Your task to perform on an android device: clear all cookies in the chrome app Image 0: 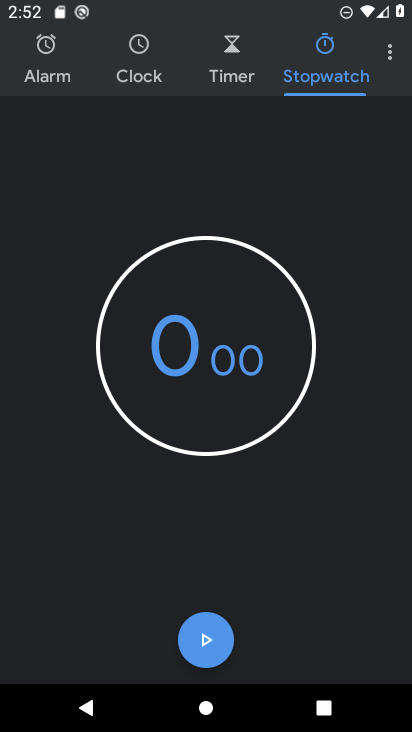
Step 0: press home button
Your task to perform on an android device: clear all cookies in the chrome app Image 1: 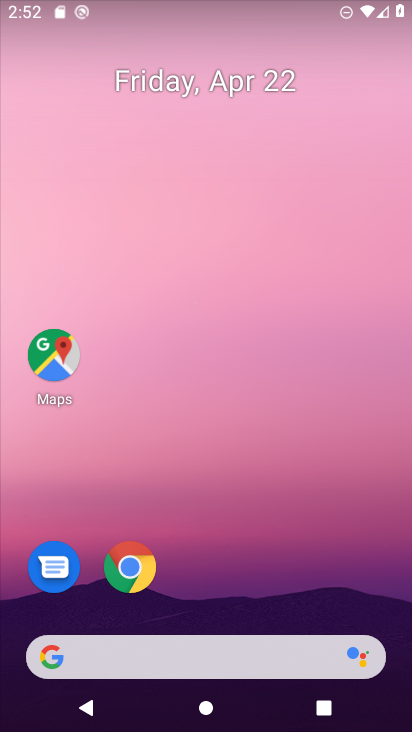
Step 1: click (129, 562)
Your task to perform on an android device: clear all cookies in the chrome app Image 2: 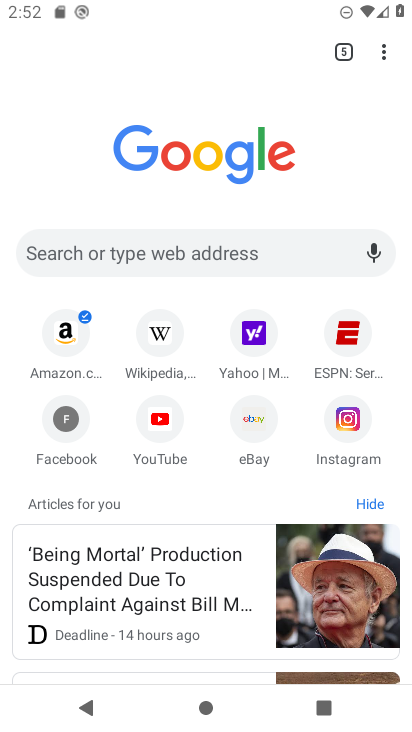
Step 2: click (385, 52)
Your task to perform on an android device: clear all cookies in the chrome app Image 3: 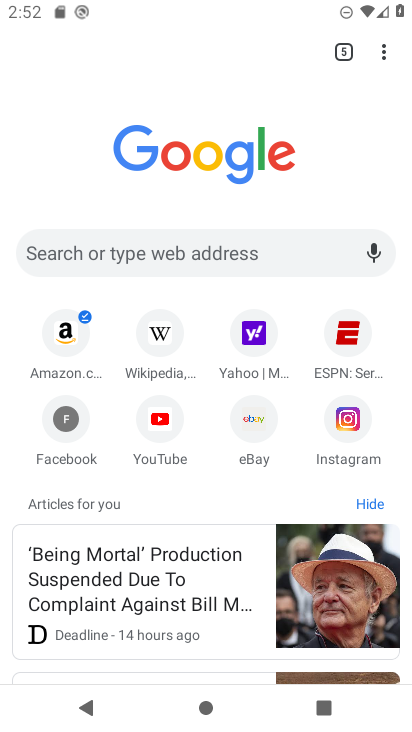
Step 3: click (390, 45)
Your task to perform on an android device: clear all cookies in the chrome app Image 4: 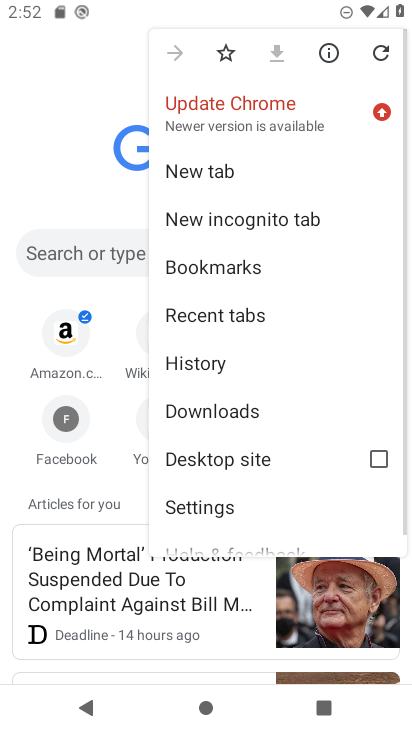
Step 4: drag from (292, 327) to (326, 118)
Your task to perform on an android device: clear all cookies in the chrome app Image 5: 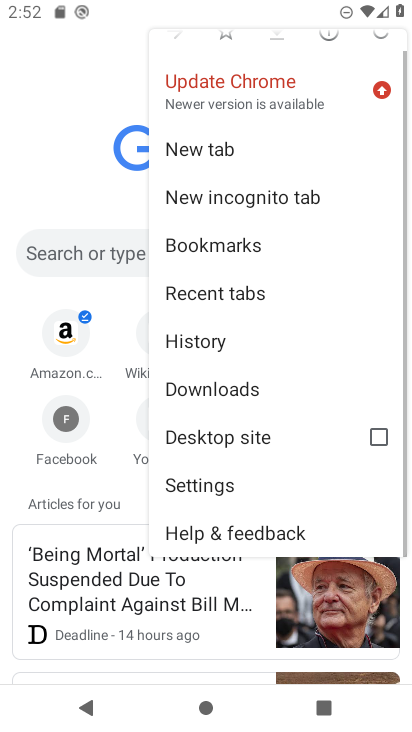
Step 5: click (217, 478)
Your task to perform on an android device: clear all cookies in the chrome app Image 6: 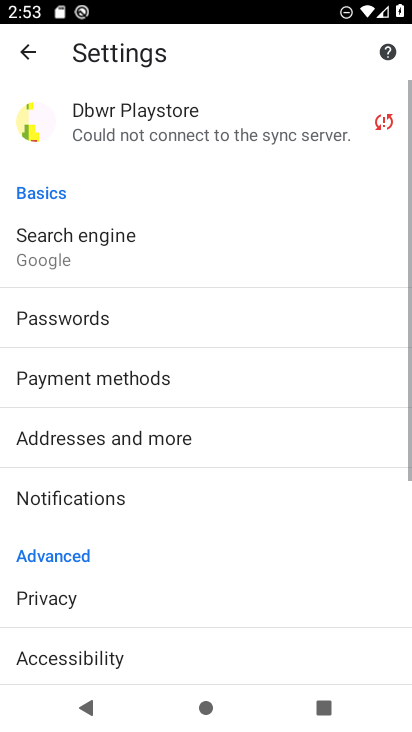
Step 6: drag from (176, 571) to (222, 30)
Your task to perform on an android device: clear all cookies in the chrome app Image 7: 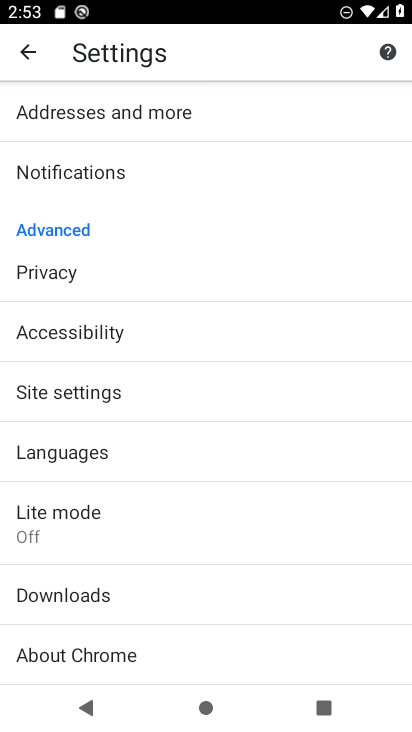
Step 7: click (152, 284)
Your task to perform on an android device: clear all cookies in the chrome app Image 8: 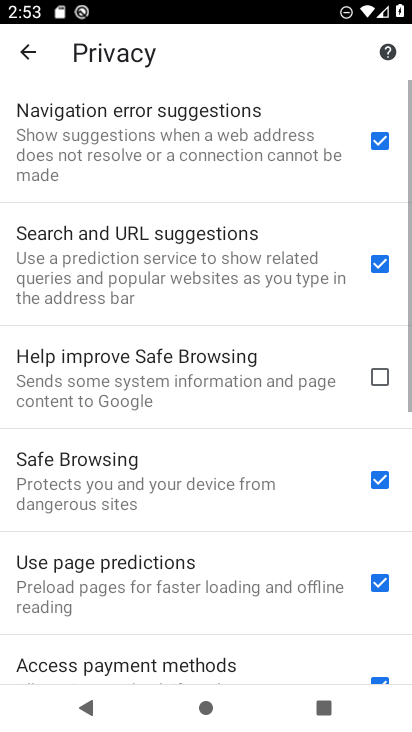
Step 8: drag from (247, 571) to (197, 44)
Your task to perform on an android device: clear all cookies in the chrome app Image 9: 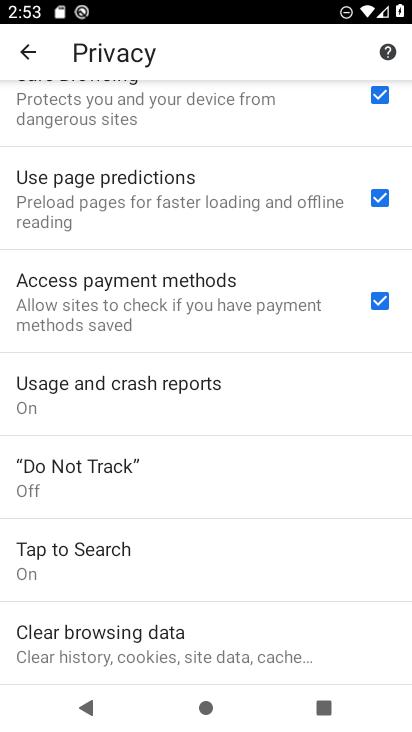
Step 9: drag from (232, 582) to (243, 100)
Your task to perform on an android device: clear all cookies in the chrome app Image 10: 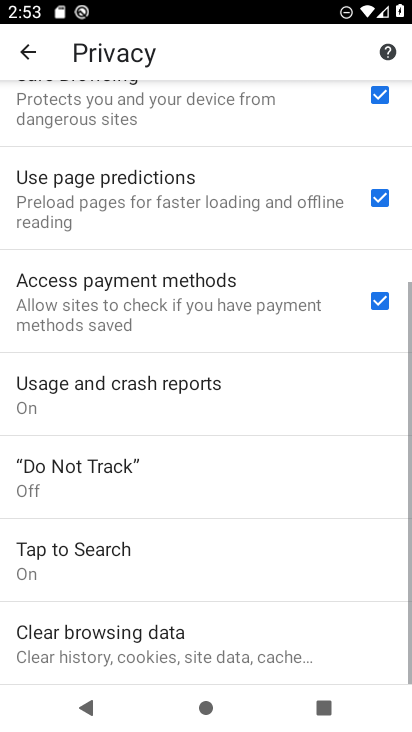
Step 10: click (184, 654)
Your task to perform on an android device: clear all cookies in the chrome app Image 11: 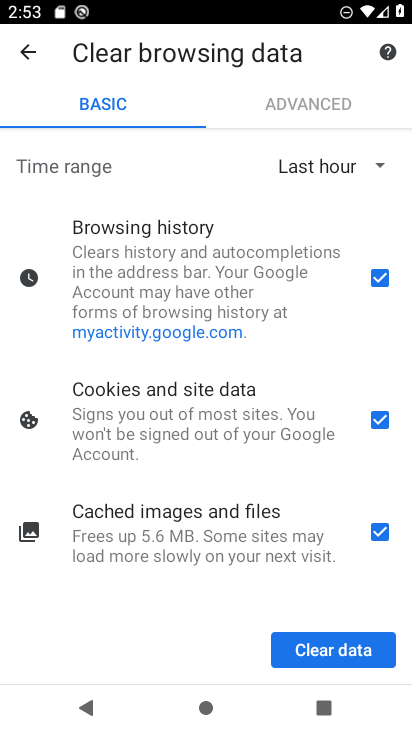
Step 11: click (370, 646)
Your task to perform on an android device: clear all cookies in the chrome app Image 12: 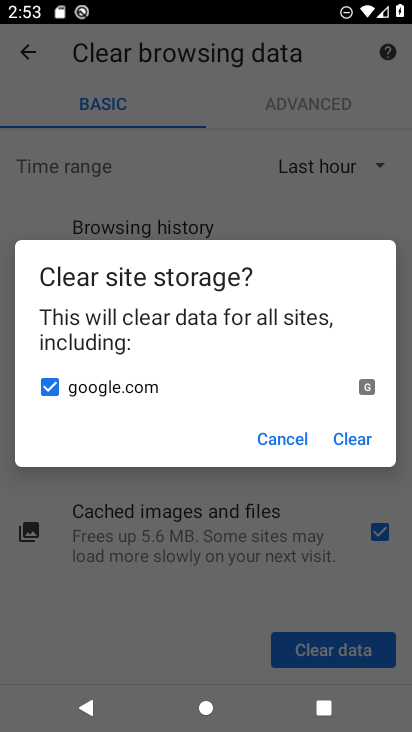
Step 12: click (353, 433)
Your task to perform on an android device: clear all cookies in the chrome app Image 13: 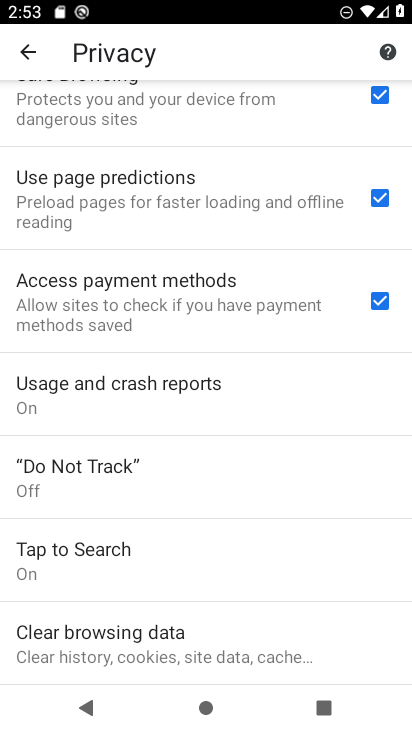
Step 13: task complete